Your task to perform on an android device: Go to CNN.com Image 0: 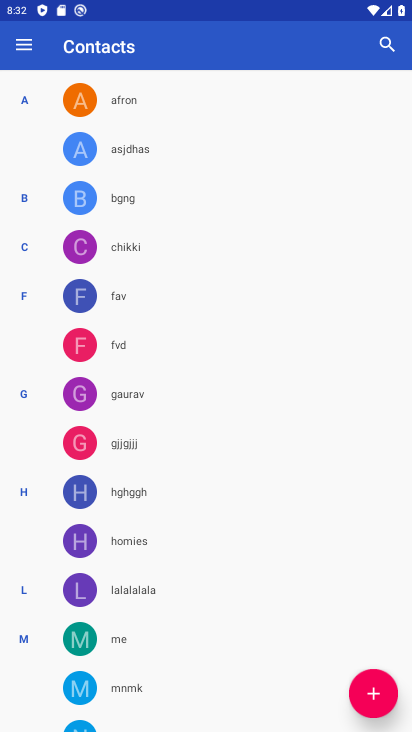
Step 0: press home button
Your task to perform on an android device: Go to CNN.com Image 1: 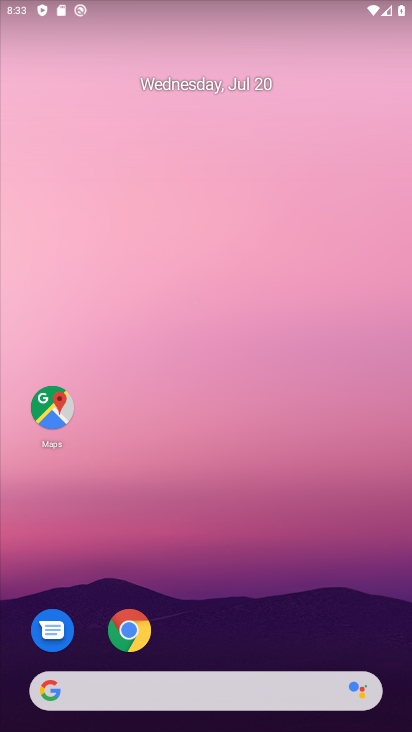
Step 1: click (134, 639)
Your task to perform on an android device: Go to CNN.com Image 2: 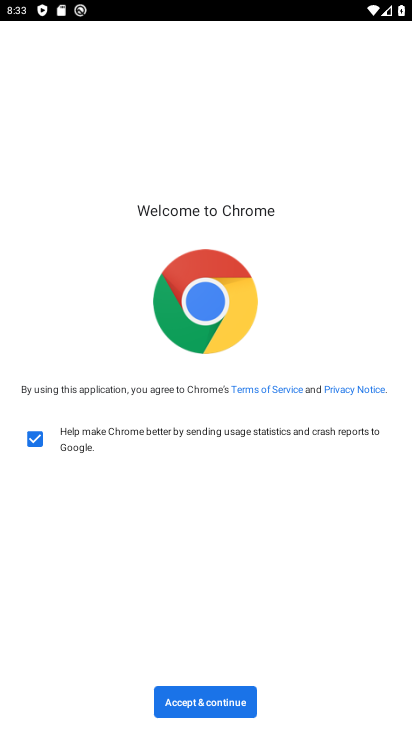
Step 2: click (208, 699)
Your task to perform on an android device: Go to CNN.com Image 3: 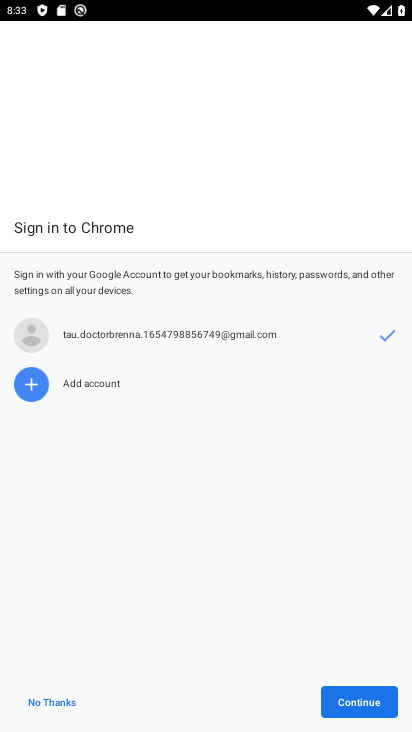
Step 3: click (331, 683)
Your task to perform on an android device: Go to CNN.com Image 4: 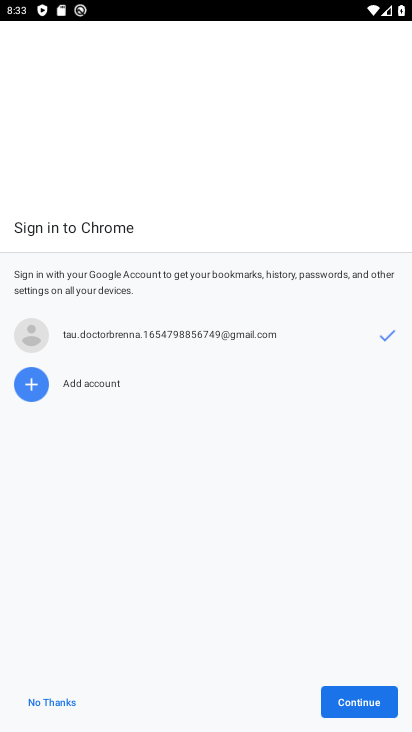
Step 4: click (339, 692)
Your task to perform on an android device: Go to CNN.com Image 5: 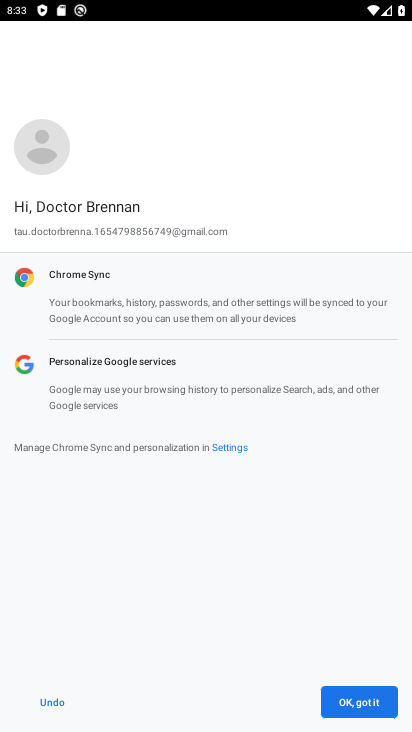
Step 5: click (339, 692)
Your task to perform on an android device: Go to CNN.com Image 6: 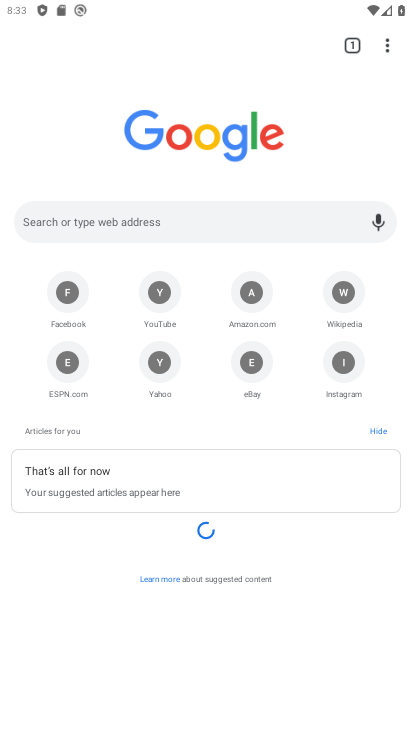
Step 6: click (218, 215)
Your task to perform on an android device: Go to CNN.com Image 7: 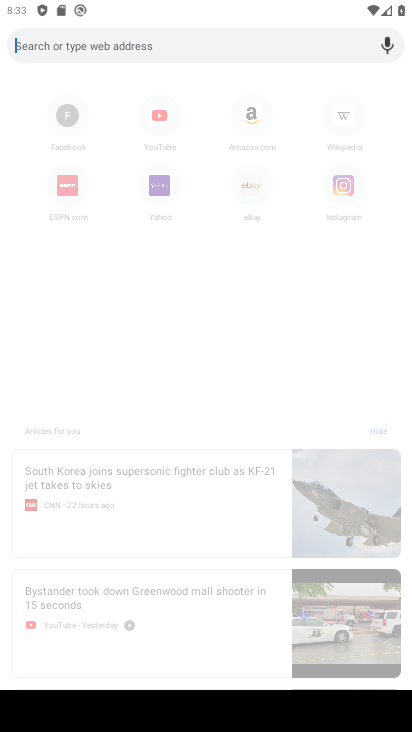
Step 7: type "CNN.com"
Your task to perform on an android device: Go to CNN.com Image 8: 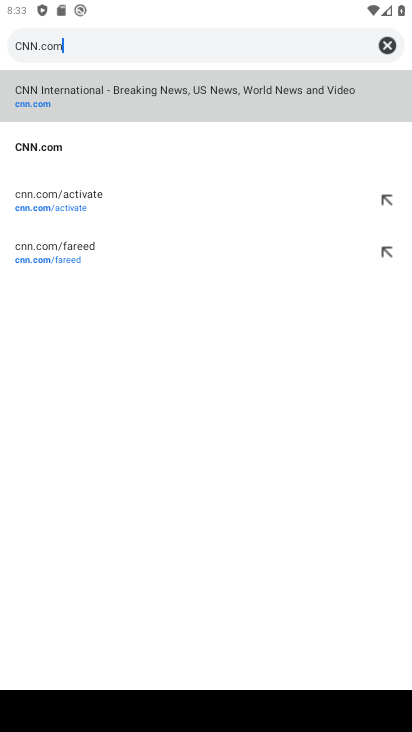
Step 8: click (188, 97)
Your task to perform on an android device: Go to CNN.com Image 9: 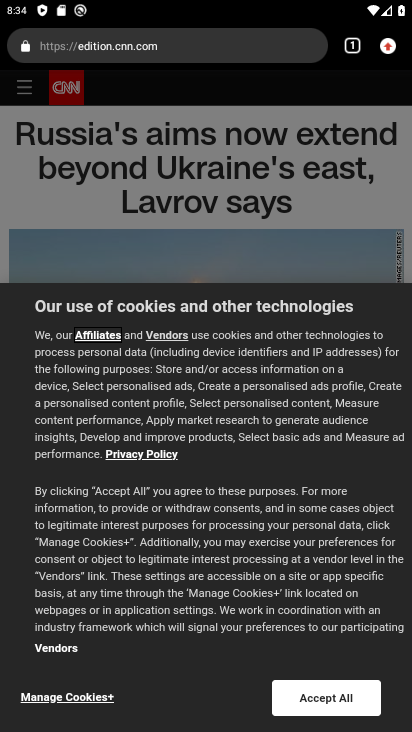
Step 9: task complete